Your task to perform on an android device: check data usage Image 0: 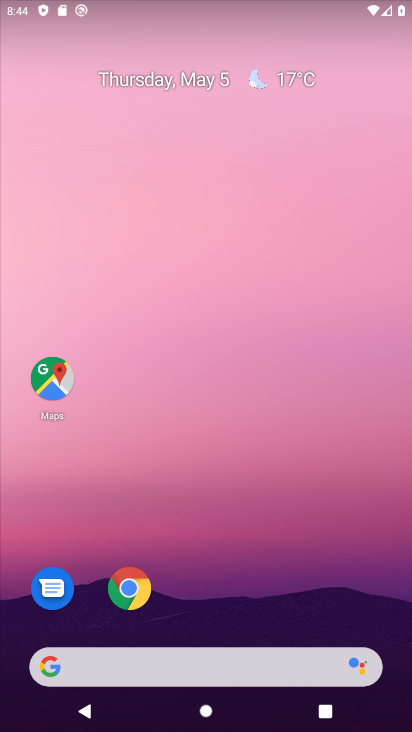
Step 0: drag from (270, 514) to (291, 319)
Your task to perform on an android device: check data usage Image 1: 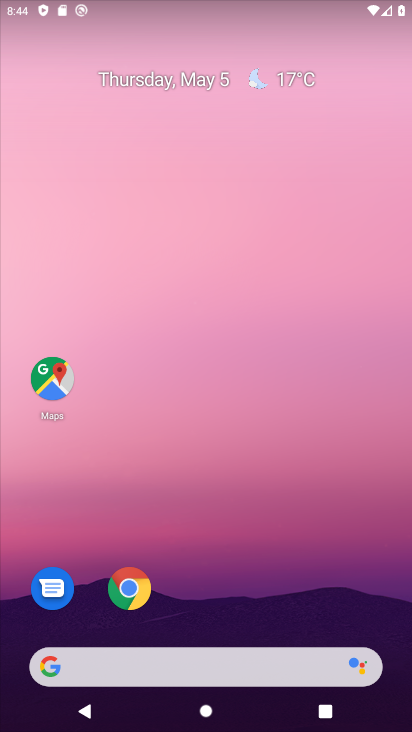
Step 1: drag from (252, 608) to (311, 274)
Your task to perform on an android device: check data usage Image 2: 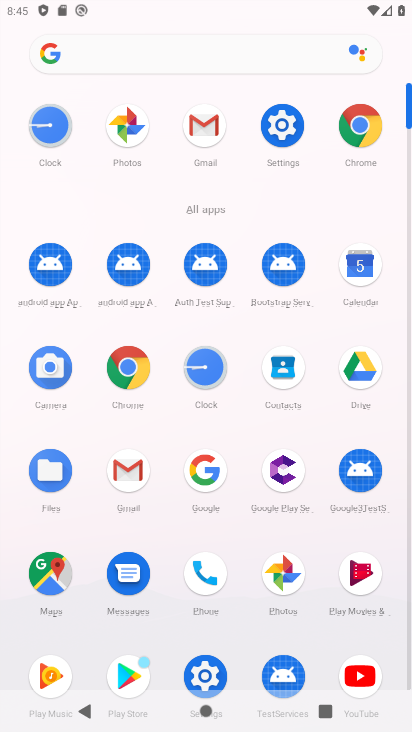
Step 2: click (268, 133)
Your task to perform on an android device: check data usage Image 3: 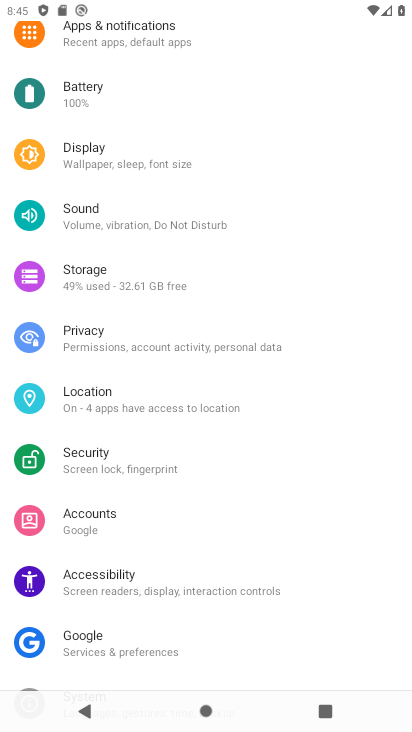
Step 3: drag from (173, 98) to (256, 492)
Your task to perform on an android device: check data usage Image 4: 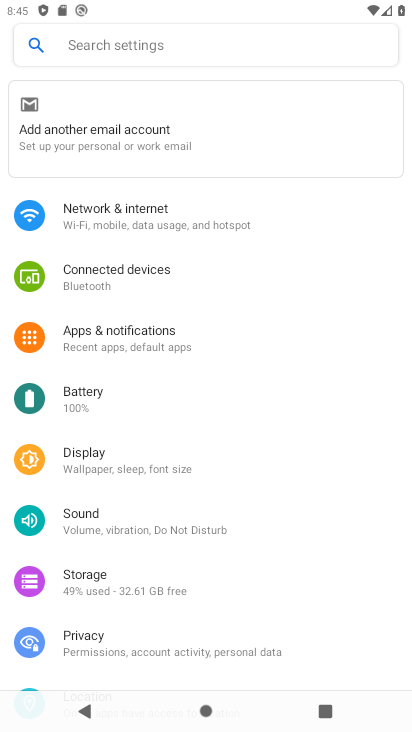
Step 4: click (165, 228)
Your task to perform on an android device: check data usage Image 5: 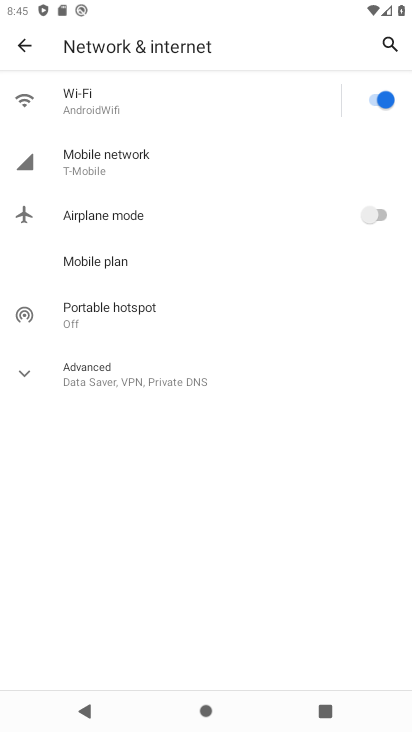
Step 5: click (91, 164)
Your task to perform on an android device: check data usage Image 6: 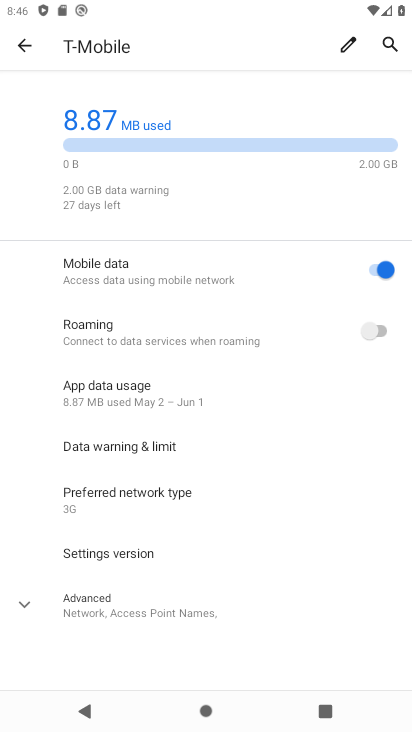
Step 6: task complete